Your task to perform on an android device: See recent photos Image 0: 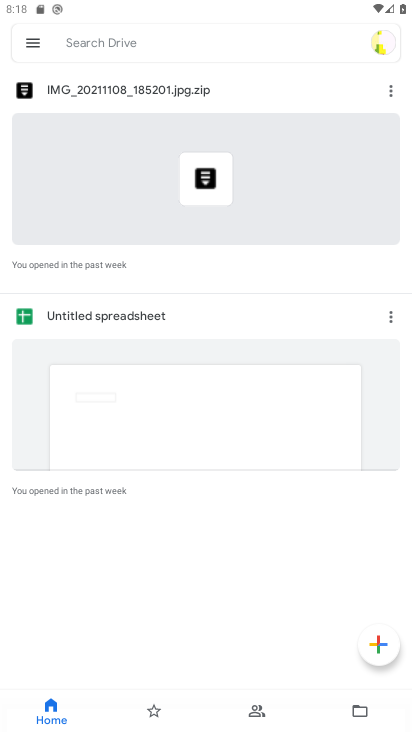
Step 0: press home button
Your task to perform on an android device: See recent photos Image 1: 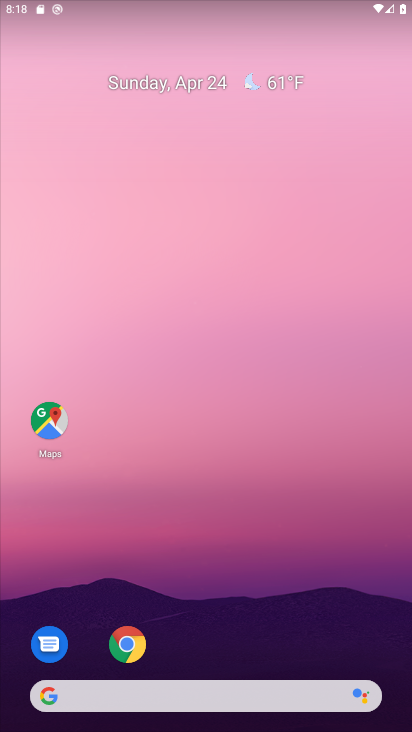
Step 1: drag from (223, 651) to (244, 65)
Your task to perform on an android device: See recent photos Image 2: 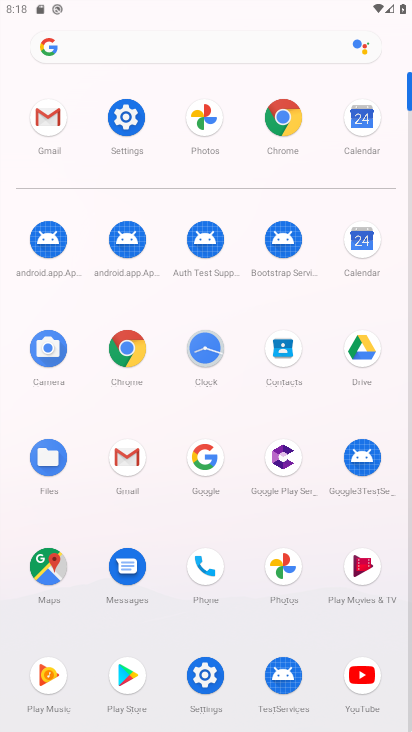
Step 2: click (283, 560)
Your task to perform on an android device: See recent photos Image 3: 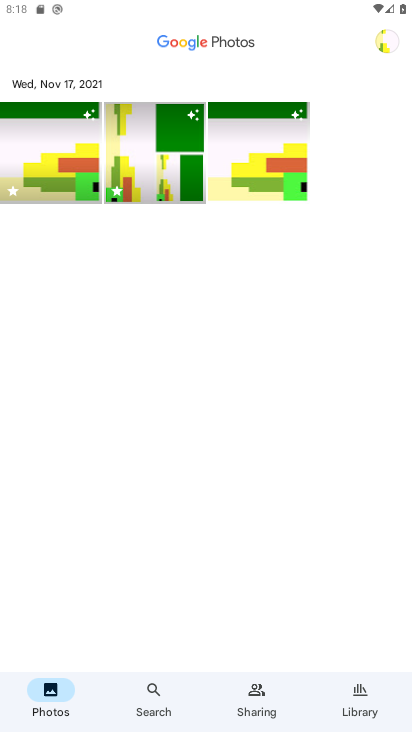
Step 3: click (55, 152)
Your task to perform on an android device: See recent photos Image 4: 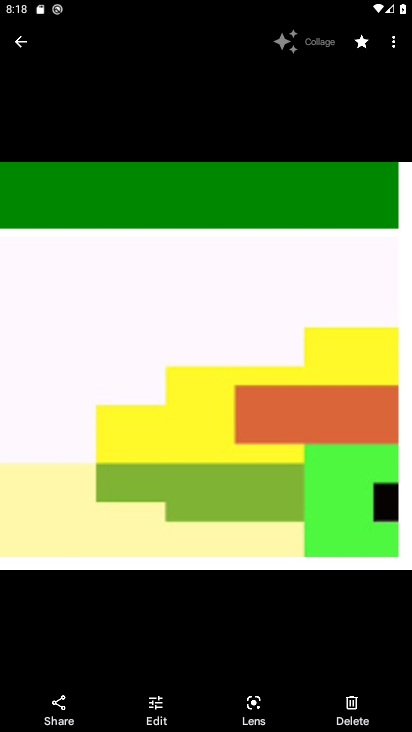
Step 4: task complete